Your task to perform on an android device: Open wifi settings Image 0: 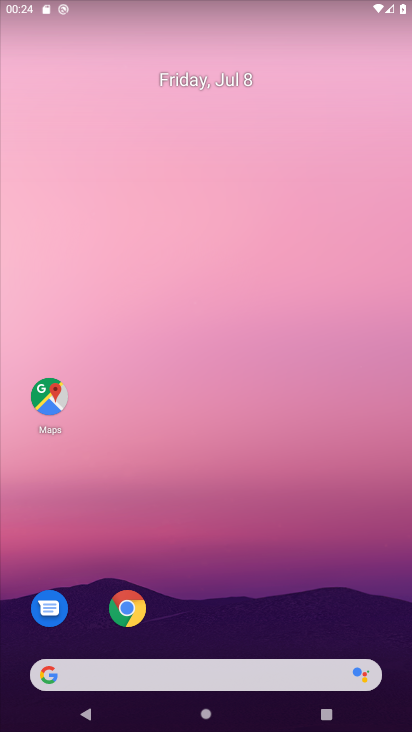
Step 0: drag from (268, 606) to (255, 84)
Your task to perform on an android device: Open wifi settings Image 1: 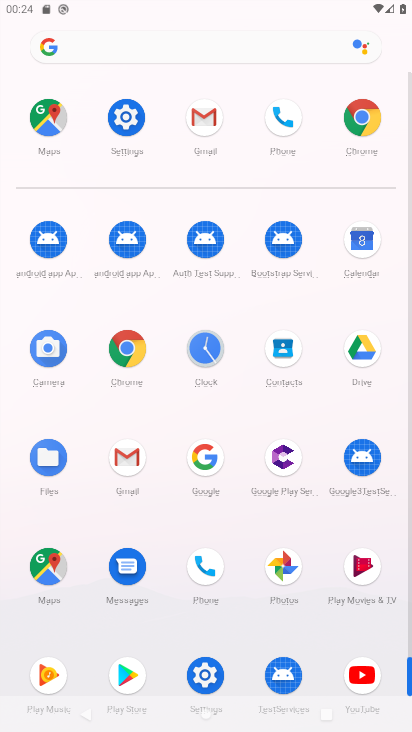
Step 1: click (134, 116)
Your task to perform on an android device: Open wifi settings Image 2: 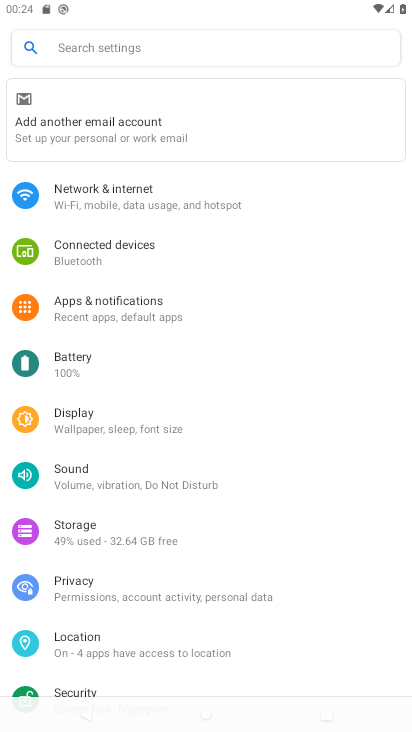
Step 2: click (138, 191)
Your task to perform on an android device: Open wifi settings Image 3: 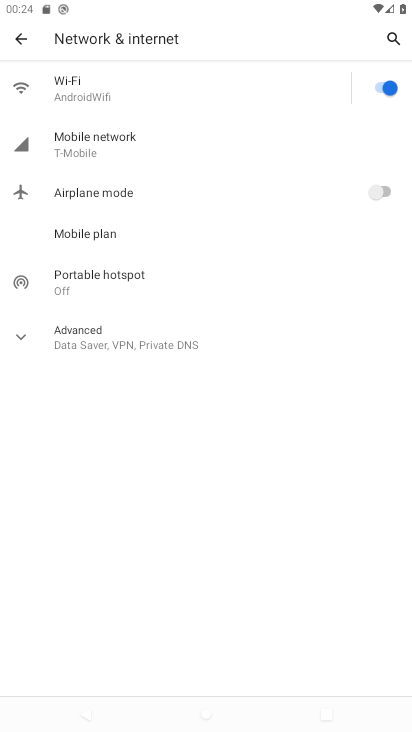
Step 3: click (130, 89)
Your task to perform on an android device: Open wifi settings Image 4: 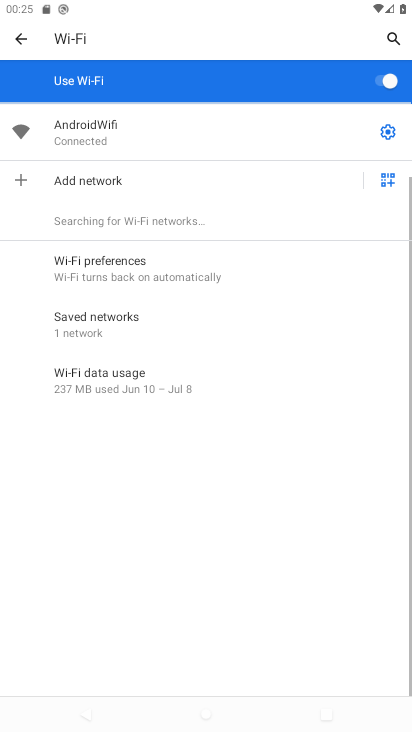
Step 4: task complete